Your task to perform on an android device: Open the web browser Image 0: 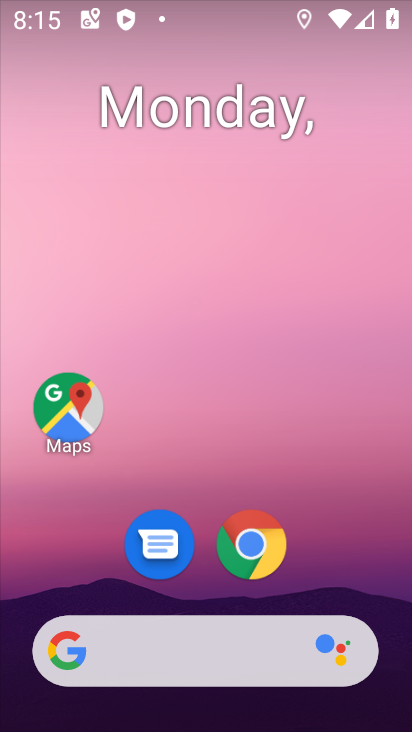
Step 0: click (115, 656)
Your task to perform on an android device: Open the web browser Image 1: 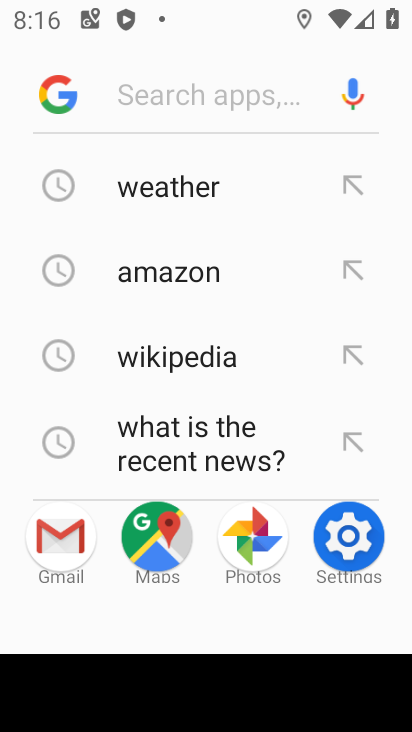
Step 1: task complete